Your task to perform on an android device: change timer sound Image 0: 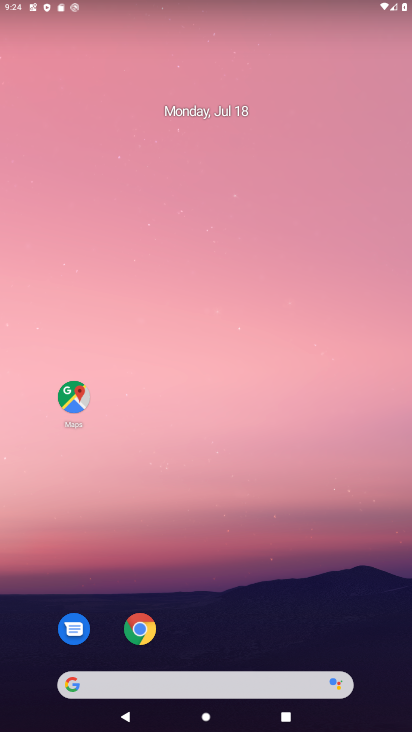
Step 0: drag from (317, 650) to (260, 200)
Your task to perform on an android device: change timer sound Image 1: 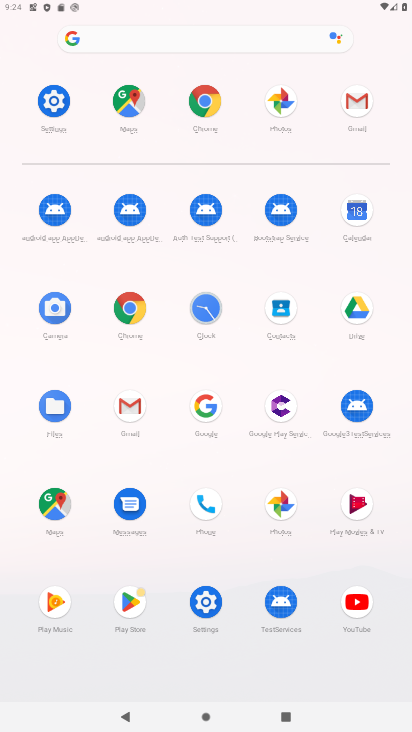
Step 1: click (202, 303)
Your task to perform on an android device: change timer sound Image 2: 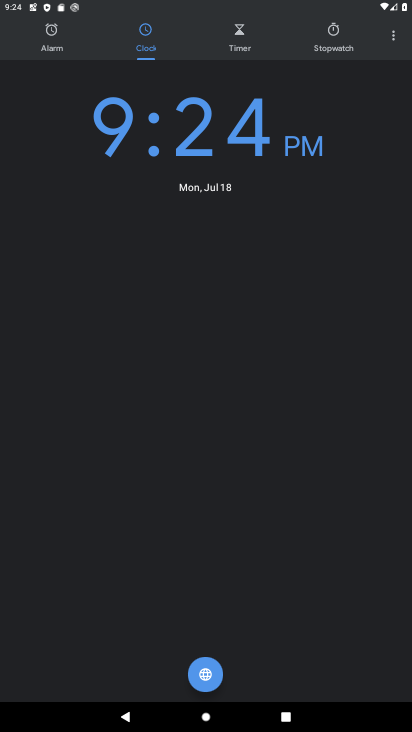
Step 2: click (402, 36)
Your task to perform on an android device: change timer sound Image 3: 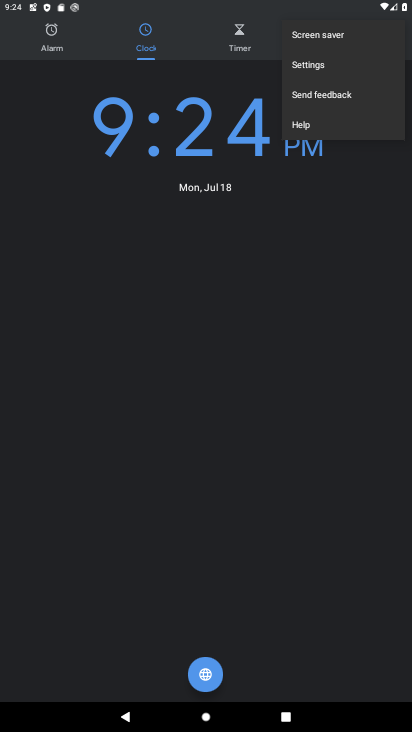
Step 3: click (323, 66)
Your task to perform on an android device: change timer sound Image 4: 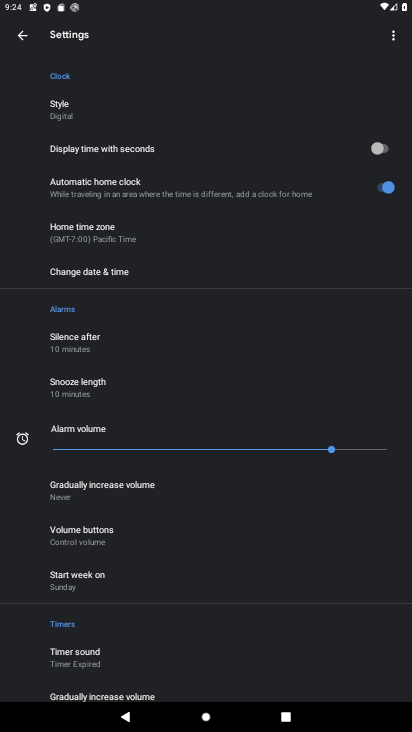
Step 4: click (72, 660)
Your task to perform on an android device: change timer sound Image 5: 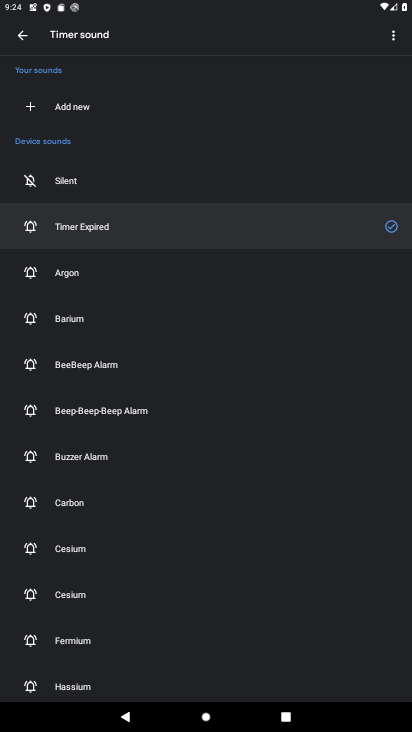
Step 5: click (91, 280)
Your task to perform on an android device: change timer sound Image 6: 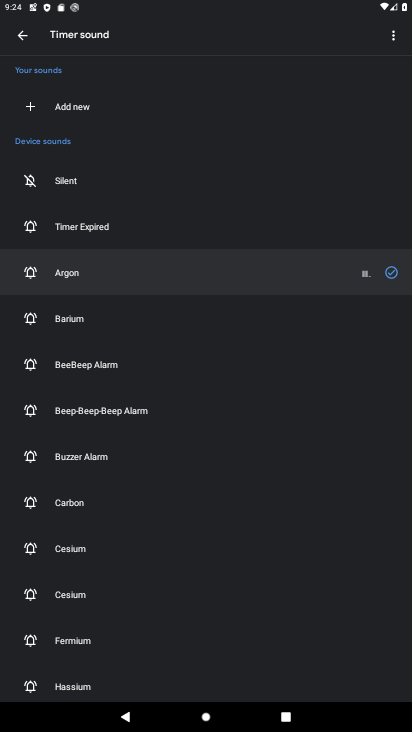
Step 6: task complete